Your task to perform on an android device: allow notifications from all sites in the chrome app Image 0: 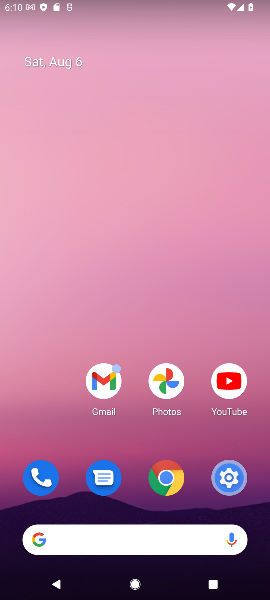
Step 0: click (165, 483)
Your task to perform on an android device: allow notifications from all sites in the chrome app Image 1: 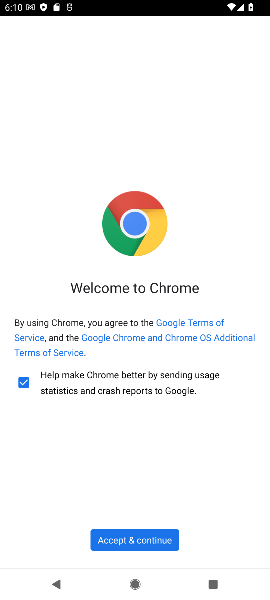
Step 1: click (145, 539)
Your task to perform on an android device: allow notifications from all sites in the chrome app Image 2: 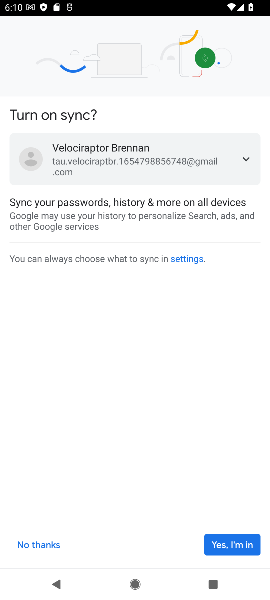
Step 2: click (248, 542)
Your task to perform on an android device: allow notifications from all sites in the chrome app Image 3: 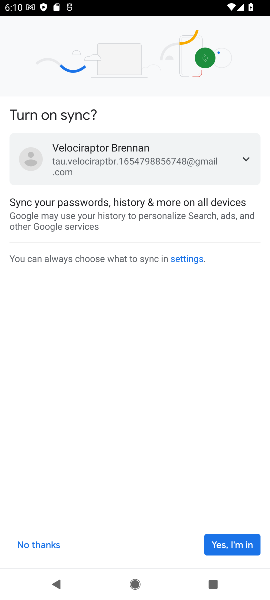
Step 3: click (240, 548)
Your task to perform on an android device: allow notifications from all sites in the chrome app Image 4: 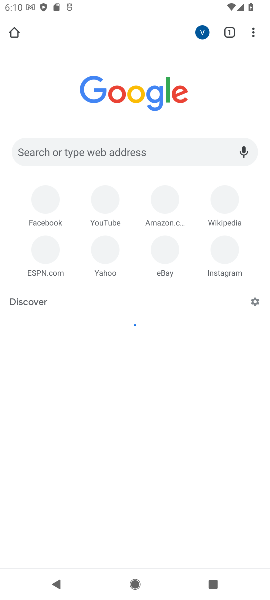
Step 4: click (253, 34)
Your task to perform on an android device: allow notifications from all sites in the chrome app Image 5: 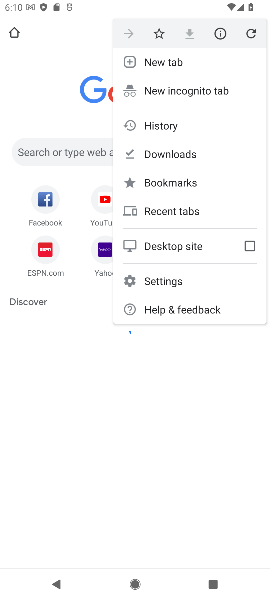
Step 5: click (171, 284)
Your task to perform on an android device: allow notifications from all sites in the chrome app Image 6: 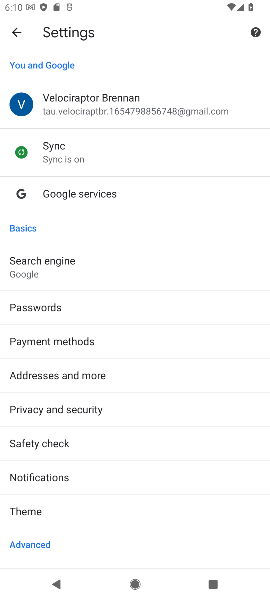
Step 6: click (59, 478)
Your task to perform on an android device: allow notifications from all sites in the chrome app Image 7: 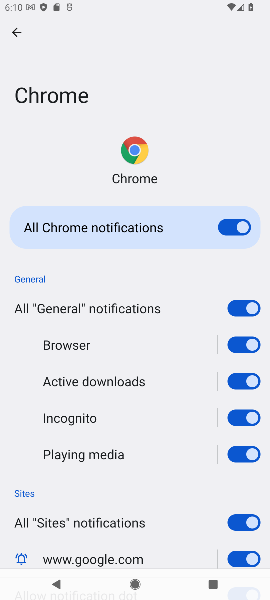
Step 7: task complete